Your task to perform on an android device: check storage Image 0: 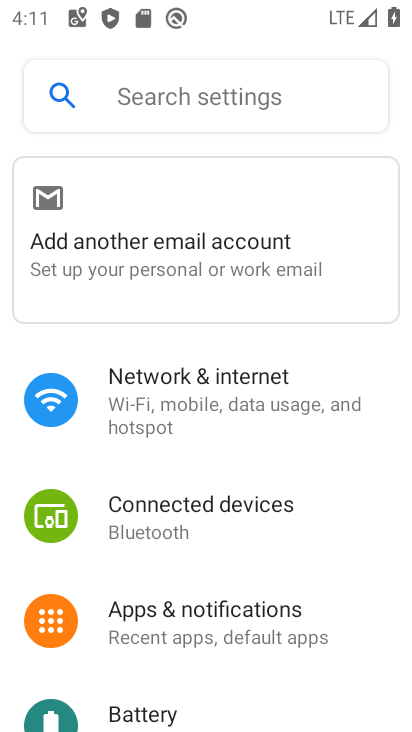
Step 0: drag from (223, 708) to (233, 405)
Your task to perform on an android device: check storage Image 1: 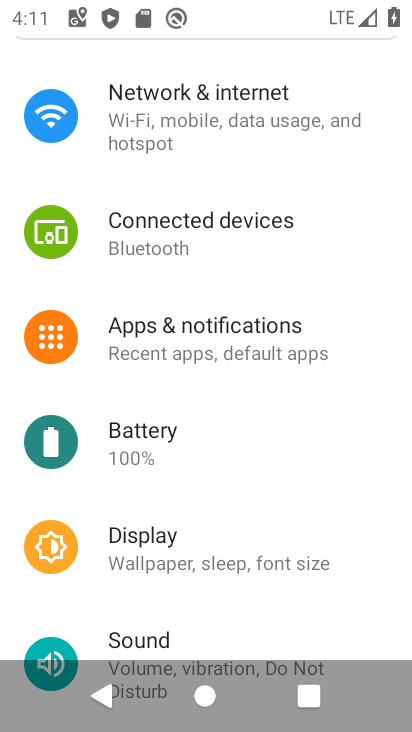
Step 1: drag from (200, 631) to (199, 290)
Your task to perform on an android device: check storage Image 2: 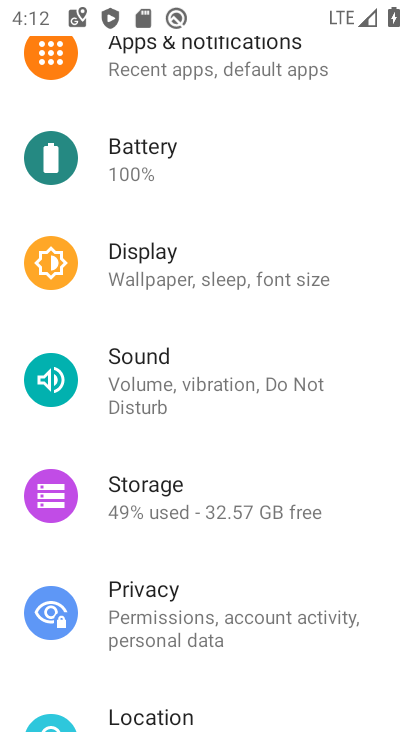
Step 2: click (169, 496)
Your task to perform on an android device: check storage Image 3: 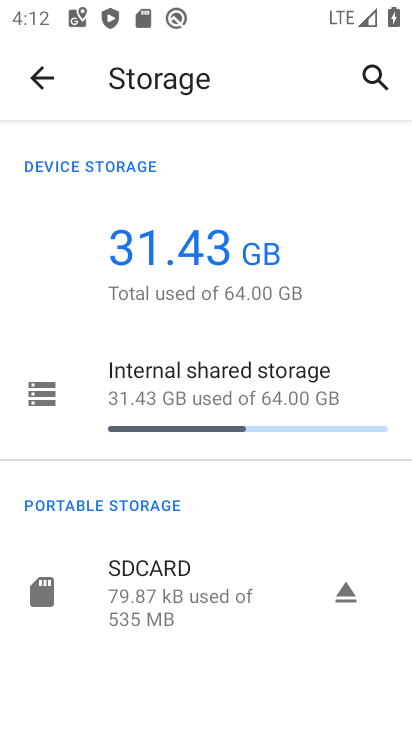
Step 3: task complete